Your task to perform on an android device: Add razer kraken to the cart on newegg Image 0: 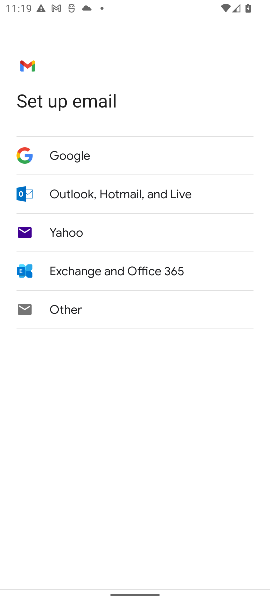
Step 0: press home button
Your task to perform on an android device: Add razer kraken to the cart on newegg Image 1: 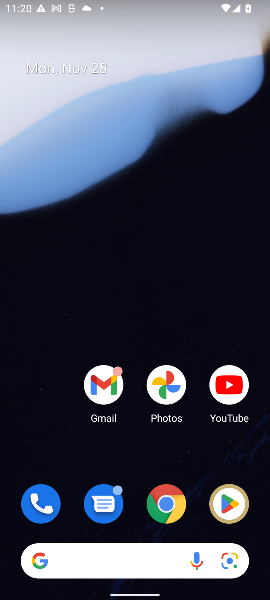
Step 1: click (164, 510)
Your task to perform on an android device: Add razer kraken to the cart on newegg Image 2: 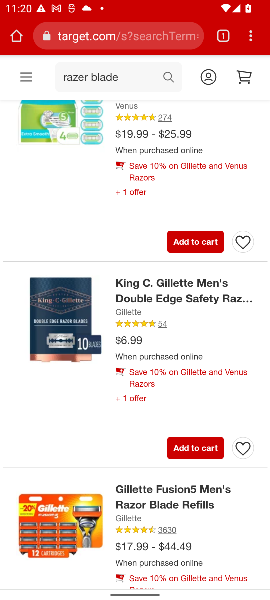
Step 2: click (82, 33)
Your task to perform on an android device: Add razer kraken to the cart on newegg Image 3: 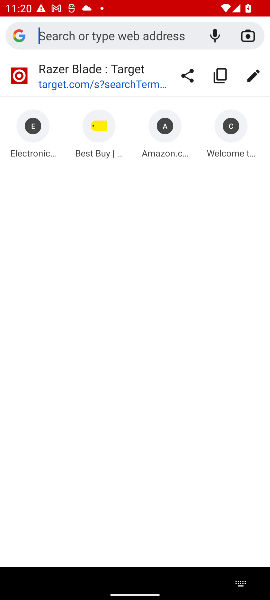
Step 3: type "newegg.com"
Your task to perform on an android device: Add razer kraken to the cart on newegg Image 4: 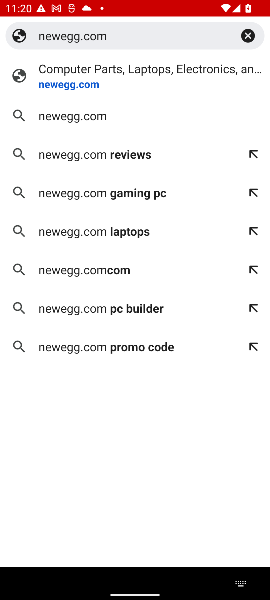
Step 4: click (61, 83)
Your task to perform on an android device: Add razer kraken to the cart on newegg Image 5: 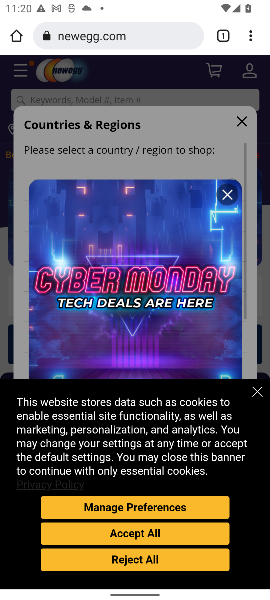
Step 5: click (231, 187)
Your task to perform on an android device: Add razer kraken to the cart on newegg Image 6: 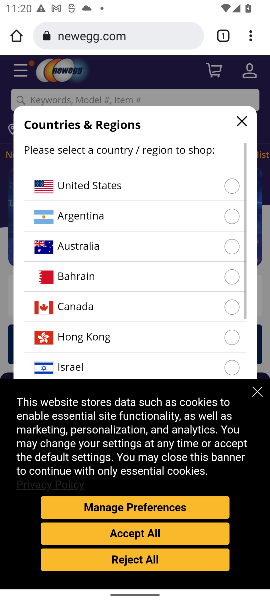
Step 6: click (260, 395)
Your task to perform on an android device: Add razer kraken to the cart on newegg Image 7: 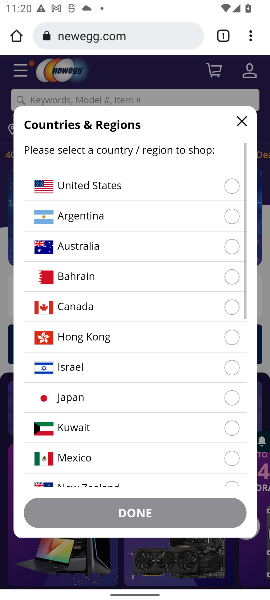
Step 7: click (79, 187)
Your task to perform on an android device: Add razer kraken to the cart on newegg Image 8: 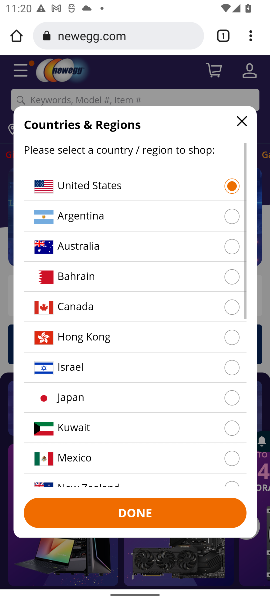
Step 8: click (102, 506)
Your task to perform on an android device: Add razer kraken to the cart on newegg Image 9: 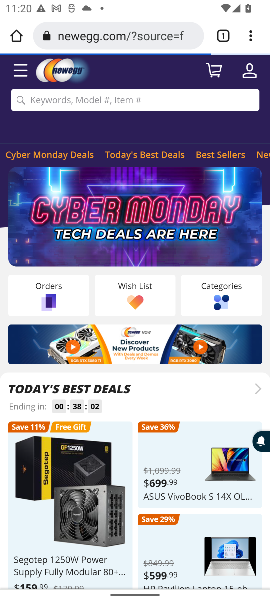
Step 9: click (98, 93)
Your task to perform on an android device: Add razer kraken to the cart on newegg Image 10: 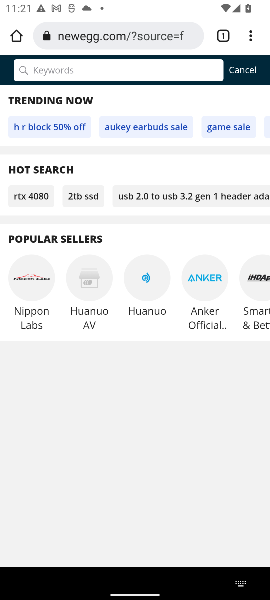
Step 10: type "razer kraken "
Your task to perform on an android device: Add razer kraken to the cart on newegg Image 11: 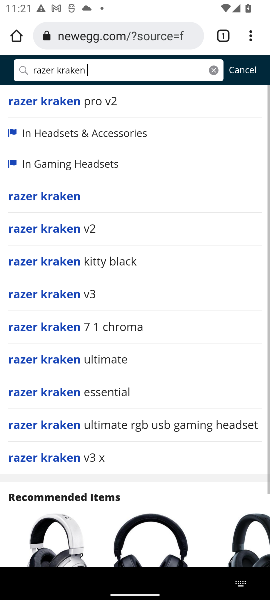
Step 11: click (58, 197)
Your task to perform on an android device: Add razer kraken to the cart on newegg Image 12: 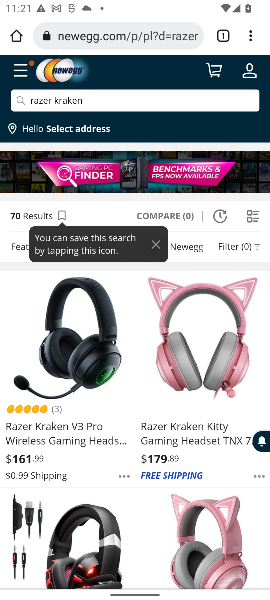
Step 12: click (56, 334)
Your task to perform on an android device: Add razer kraken to the cart on newegg Image 13: 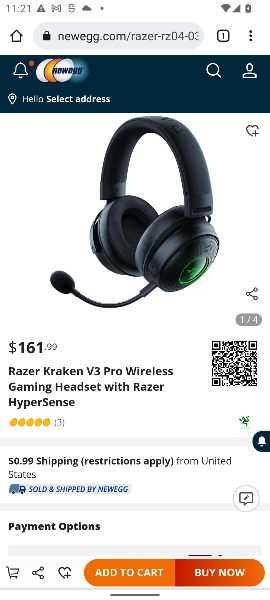
Step 13: click (107, 569)
Your task to perform on an android device: Add razer kraken to the cart on newegg Image 14: 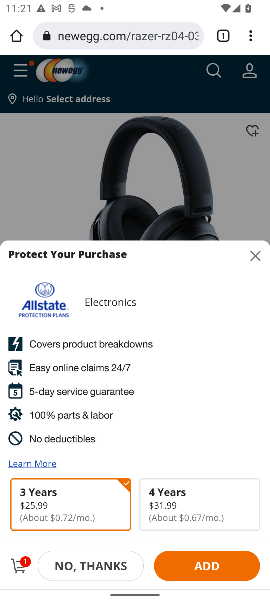
Step 14: task complete